Your task to perform on an android device: Open network settings Image 0: 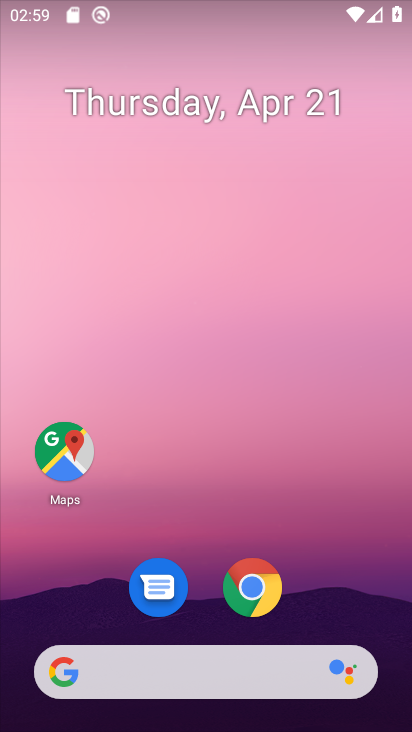
Step 0: drag from (339, 530) to (342, 188)
Your task to perform on an android device: Open network settings Image 1: 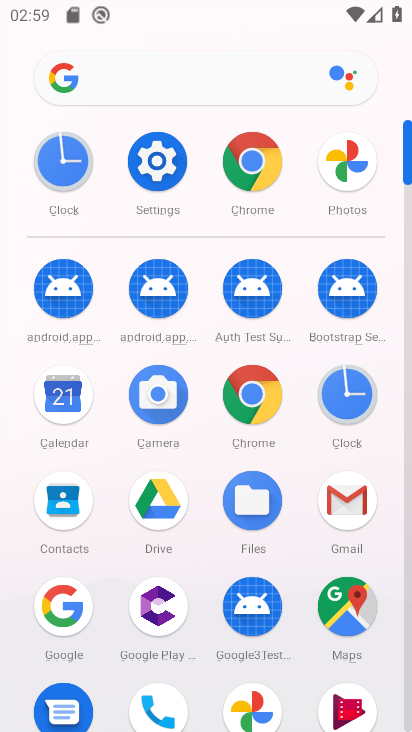
Step 1: click (163, 172)
Your task to perform on an android device: Open network settings Image 2: 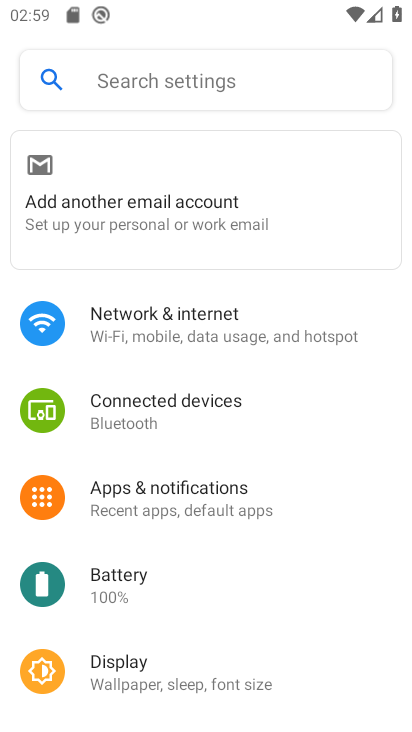
Step 2: drag from (349, 614) to (343, 446)
Your task to perform on an android device: Open network settings Image 3: 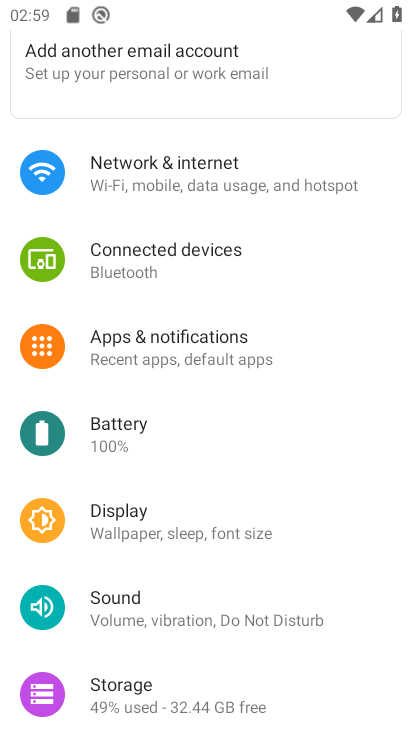
Step 3: drag from (359, 592) to (361, 426)
Your task to perform on an android device: Open network settings Image 4: 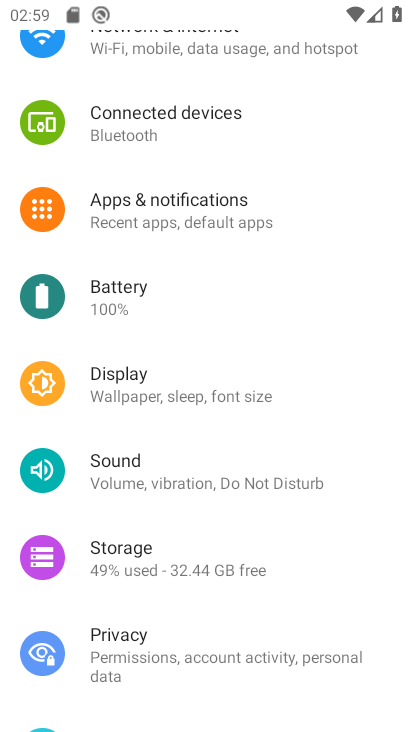
Step 4: drag from (350, 577) to (363, 385)
Your task to perform on an android device: Open network settings Image 5: 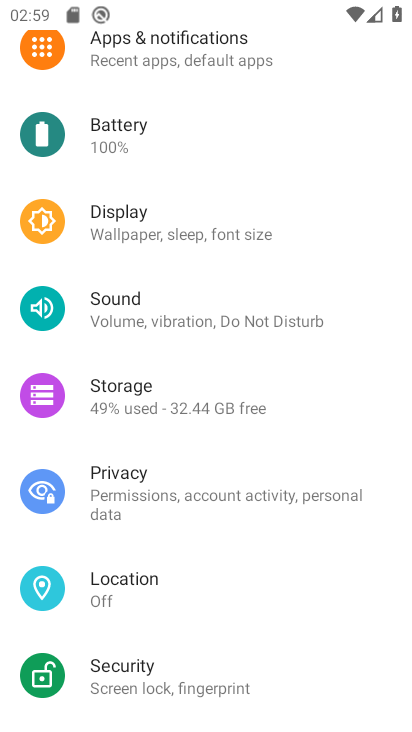
Step 5: drag from (346, 622) to (362, 426)
Your task to perform on an android device: Open network settings Image 6: 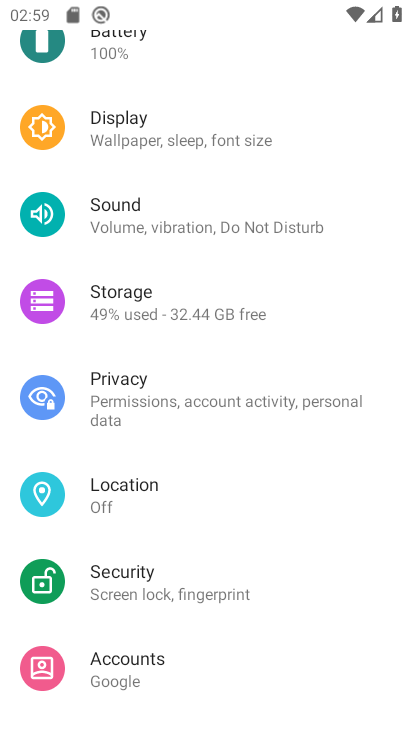
Step 6: drag from (341, 614) to (343, 335)
Your task to perform on an android device: Open network settings Image 7: 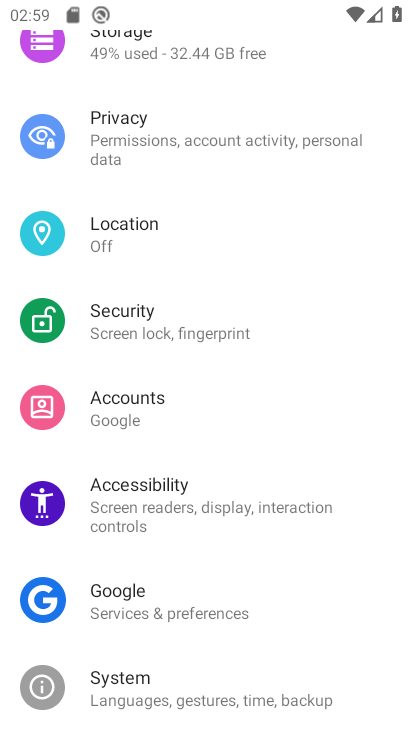
Step 7: drag from (336, 593) to (343, 368)
Your task to perform on an android device: Open network settings Image 8: 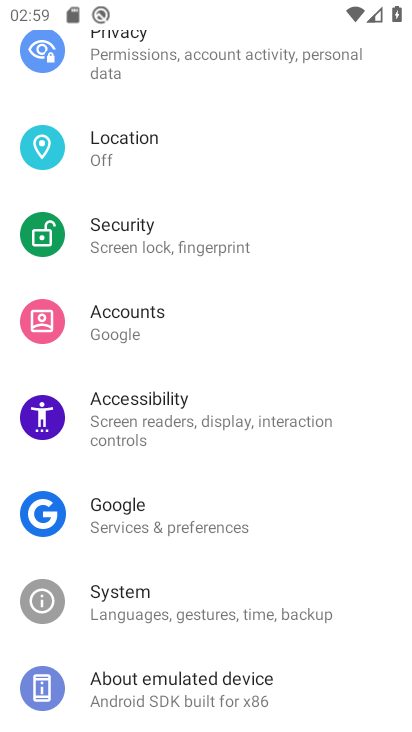
Step 8: drag from (357, 271) to (353, 507)
Your task to perform on an android device: Open network settings Image 9: 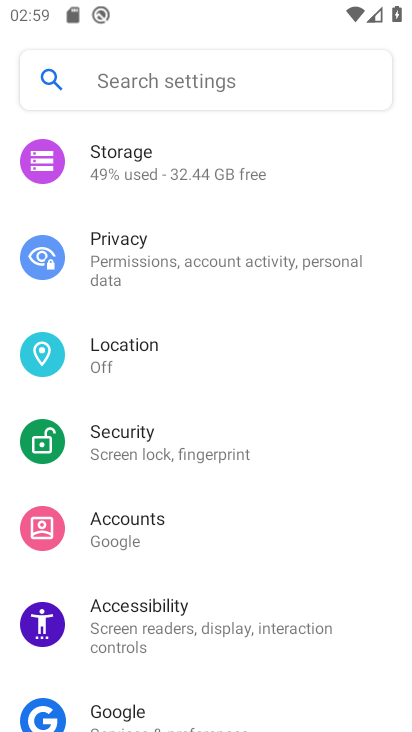
Step 9: drag from (346, 326) to (345, 490)
Your task to perform on an android device: Open network settings Image 10: 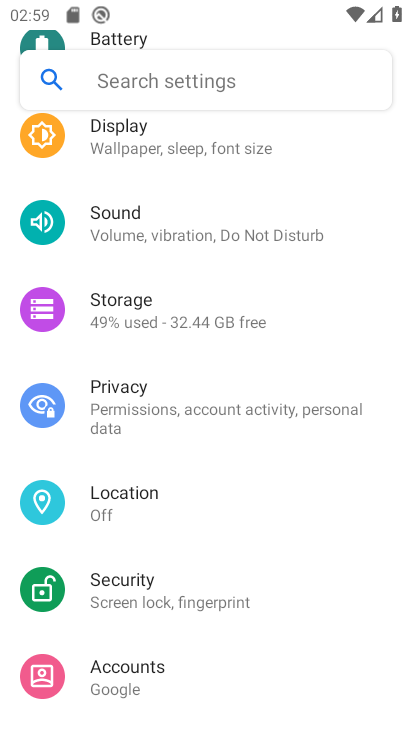
Step 10: drag from (369, 295) to (356, 488)
Your task to perform on an android device: Open network settings Image 11: 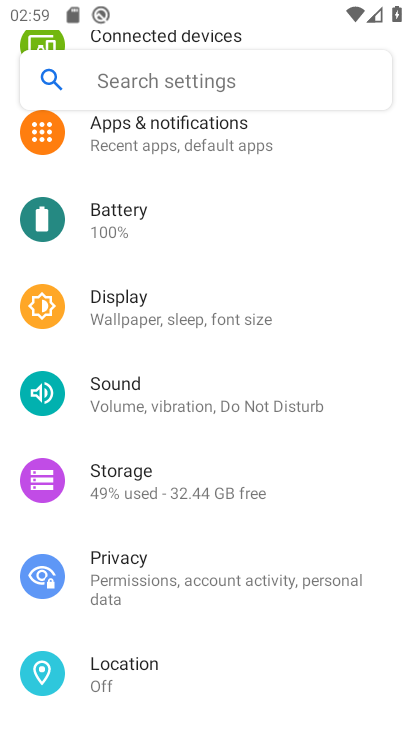
Step 11: drag from (350, 307) to (347, 454)
Your task to perform on an android device: Open network settings Image 12: 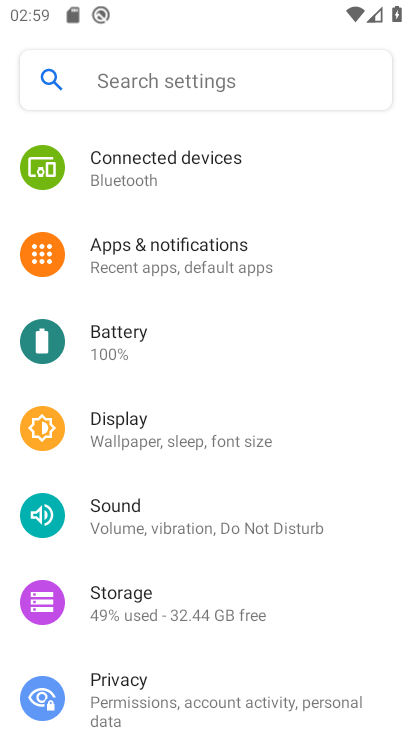
Step 12: drag from (340, 285) to (339, 476)
Your task to perform on an android device: Open network settings Image 13: 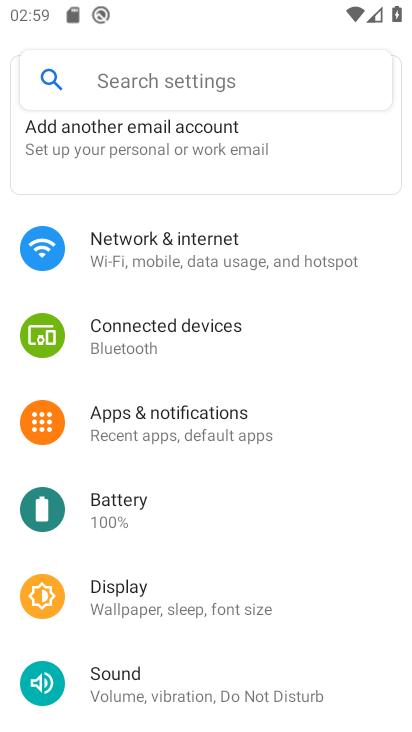
Step 13: drag from (357, 396) to (353, 498)
Your task to perform on an android device: Open network settings Image 14: 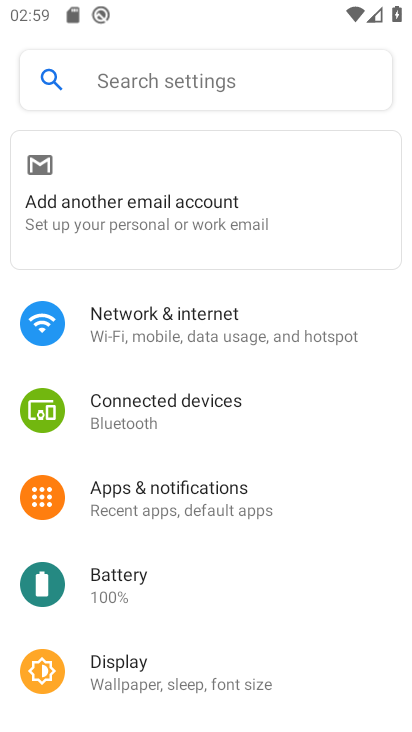
Step 14: drag from (348, 296) to (322, 466)
Your task to perform on an android device: Open network settings Image 15: 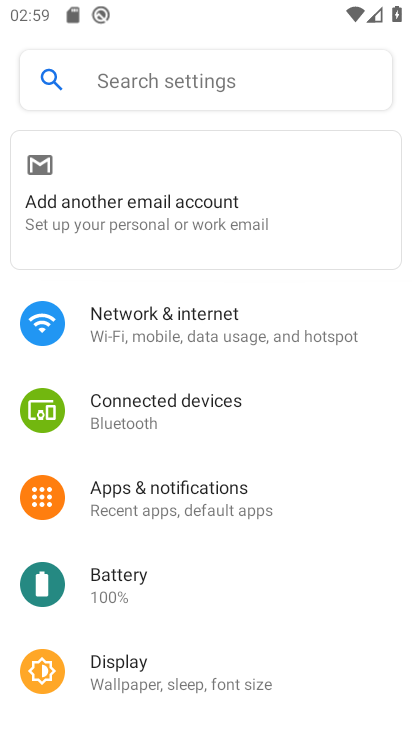
Step 15: click (278, 334)
Your task to perform on an android device: Open network settings Image 16: 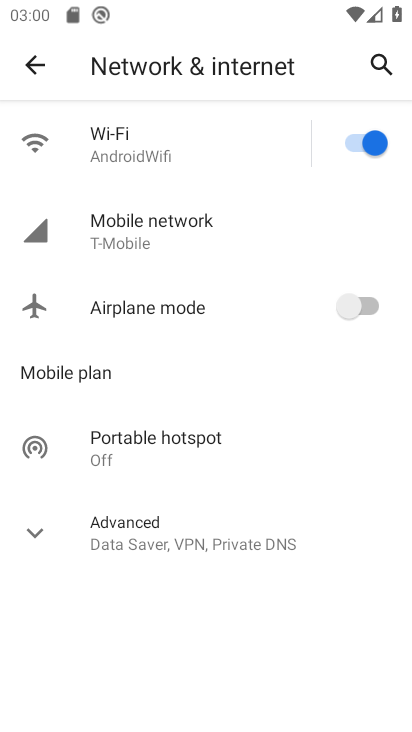
Step 16: task complete